Your task to perform on an android device: change keyboard looks Image 0: 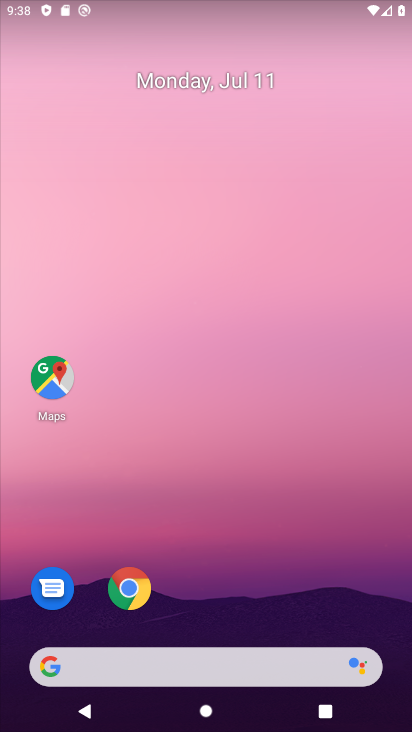
Step 0: drag from (213, 558) to (234, 178)
Your task to perform on an android device: change keyboard looks Image 1: 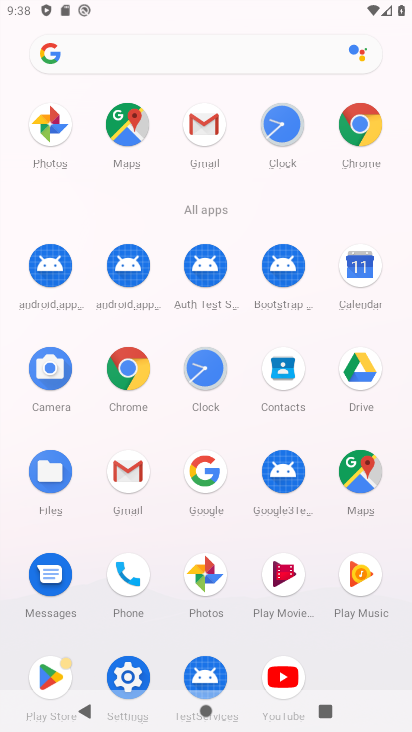
Step 1: click (129, 668)
Your task to perform on an android device: change keyboard looks Image 2: 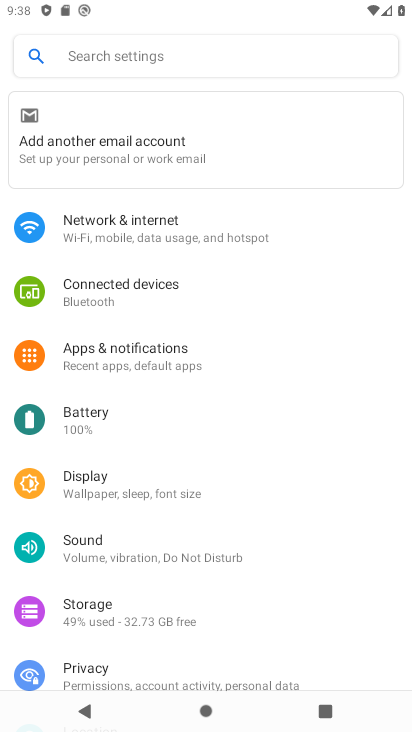
Step 2: drag from (184, 631) to (217, 284)
Your task to perform on an android device: change keyboard looks Image 3: 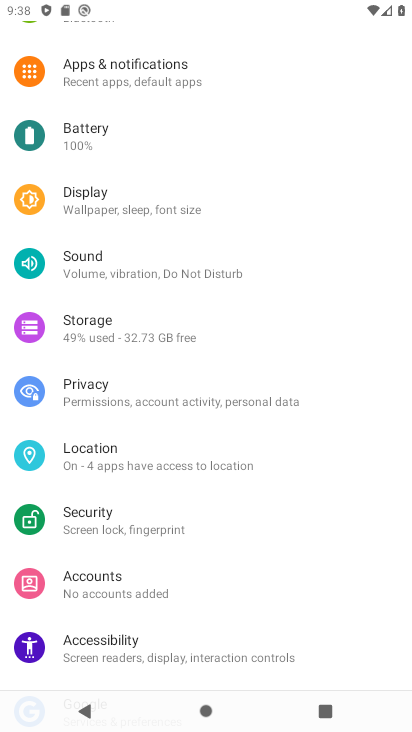
Step 3: drag from (165, 575) to (194, 236)
Your task to perform on an android device: change keyboard looks Image 4: 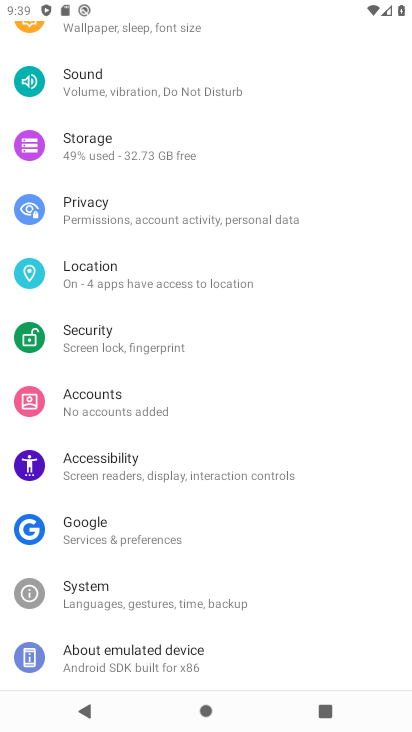
Step 4: drag from (161, 615) to (157, 344)
Your task to perform on an android device: change keyboard looks Image 5: 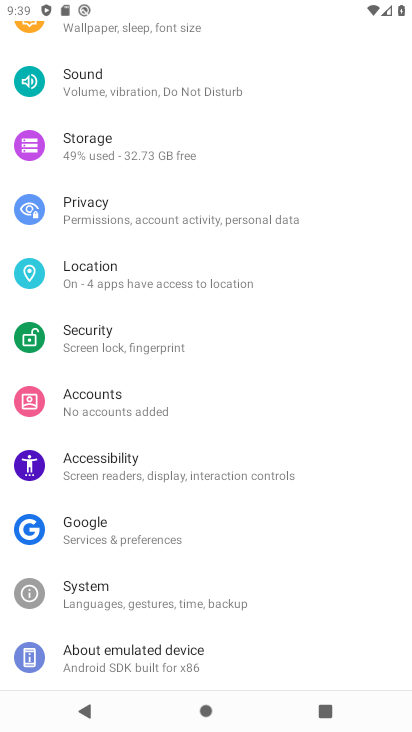
Step 5: click (108, 598)
Your task to perform on an android device: change keyboard looks Image 6: 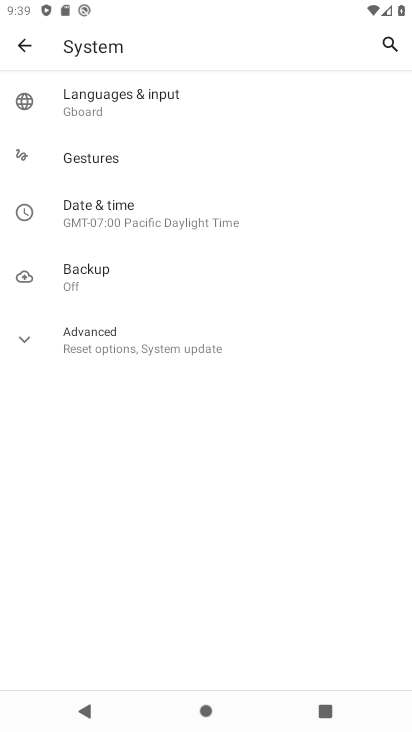
Step 6: click (97, 98)
Your task to perform on an android device: change keyboard looks Image 7: 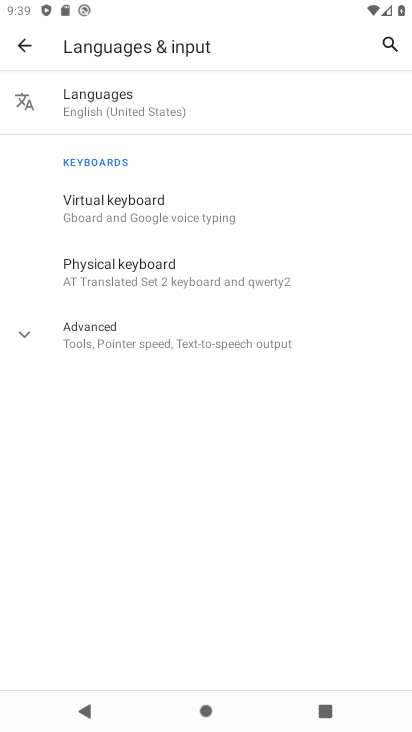
Step 7: click (165, 215)
Your task to perform on an android device: change keyboard looks Image 8: 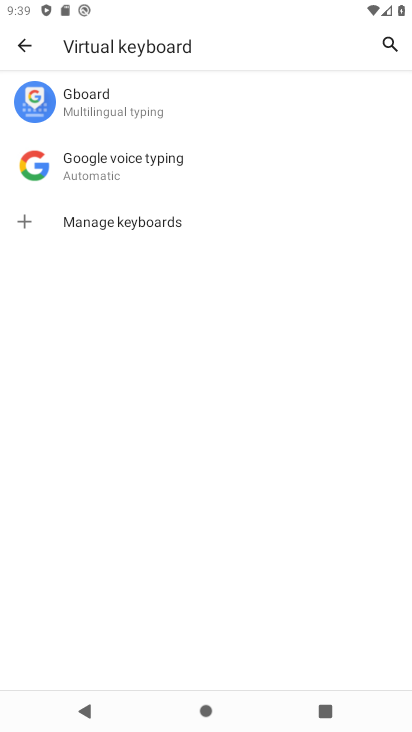
Step 8: click (118, 95)
Your task to perform on an android device: change keyboard looks Image 9: 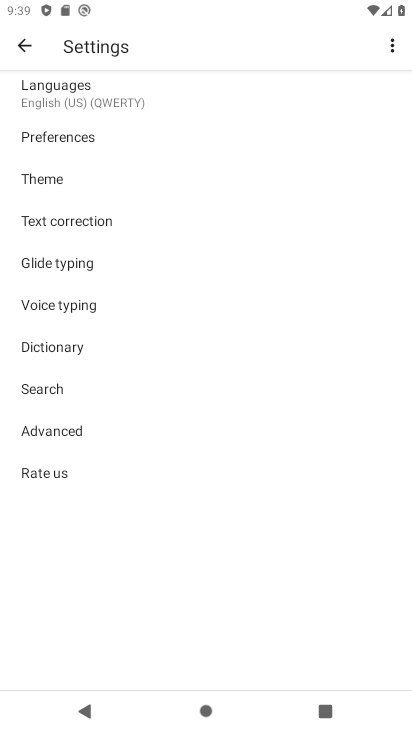
Step 9: click (60, 179)
Your task to perform on an android device: change keyboard looks Image 10: 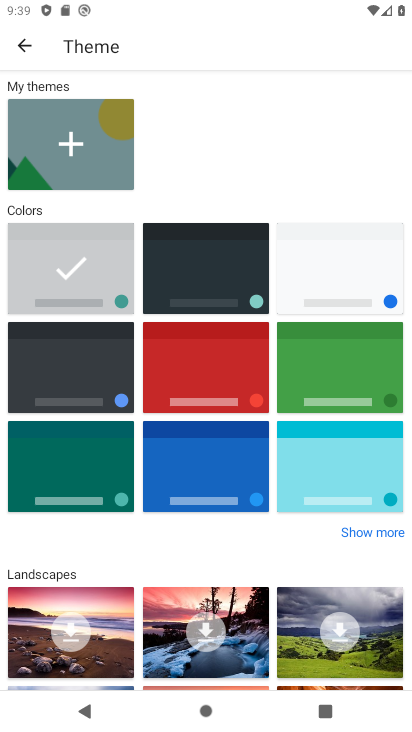
Step 10: click (183, 275)
Your task to perform on an android device: change keyboard looks Image 11: 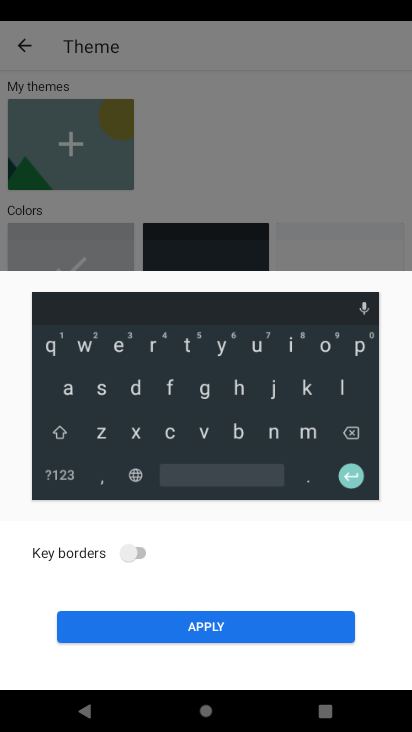
Step 11: click (296, 618)
Your task to perform on an android device: change keyboard looks Image 12: 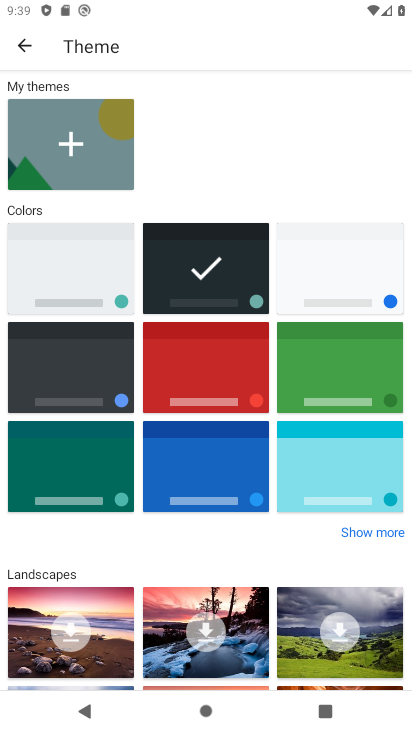
Step 12: task complete